Your task to perform on an android device: Go to notification settings Image 0: 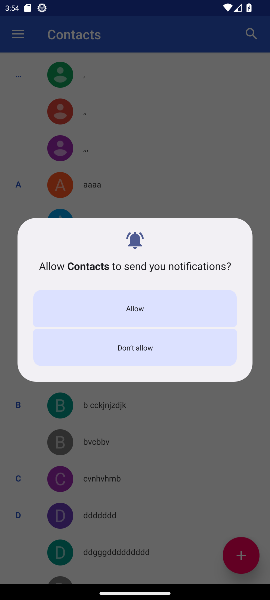
Step 0: press home button
Your task to perform on an android device: Go to notification settings Image 1: 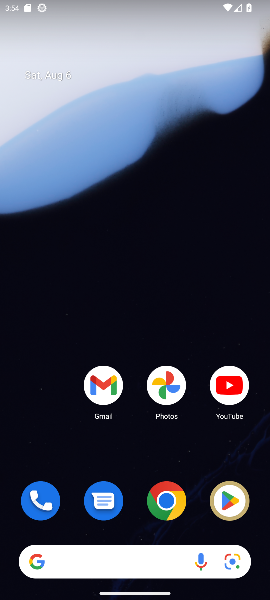
Step 1: drag from (63, 349) to (165, 141)
Your task to perform on an android device: Go to notification settings Image 2: 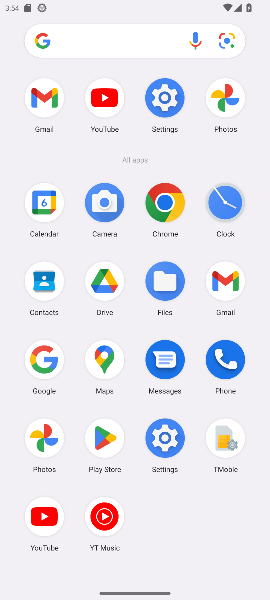
Step 2: click (184, 105)
Your task to perform on an android device: Go to notification settings Image 3: 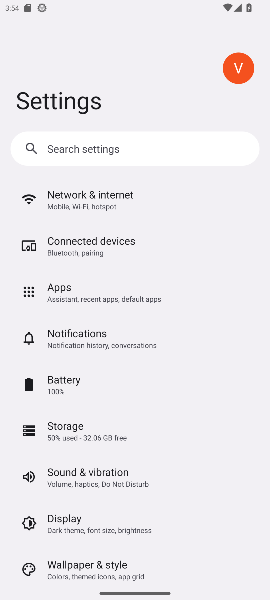
Step 3: click (87, 335)
Your task to perform on an android device: Go to notification settings Image 4: 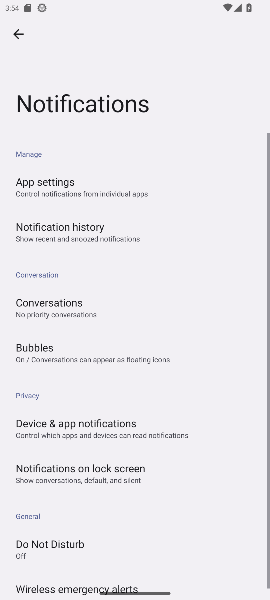
Step 4: task complete